Your task to perform on an android device: Open calendar and show me the second week of next month Image 0: 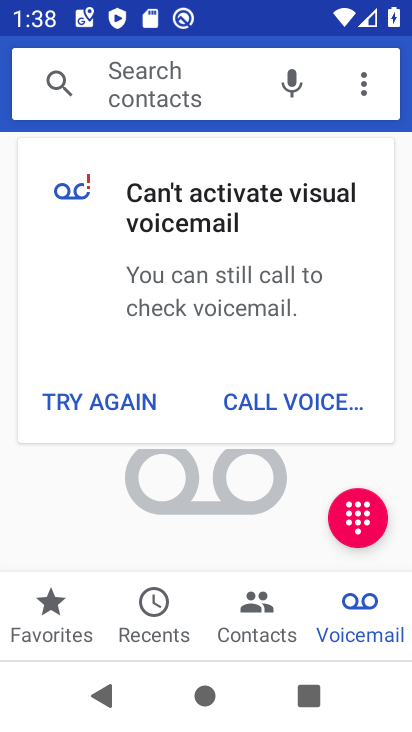
Step 0: press home button
Your task to perform on an android device: Open calendar and show me the second week of next month Image 1: 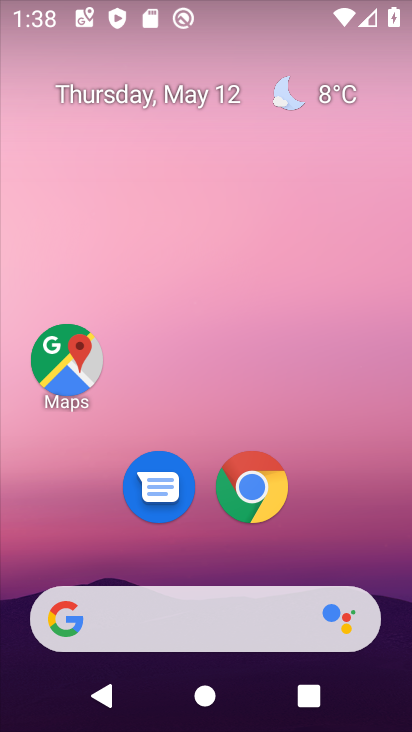
Step 1: drag from (304, 545) to (271, 12)
Your task to perform on an android device: Open calendar and show me the second week of next month Image 2: 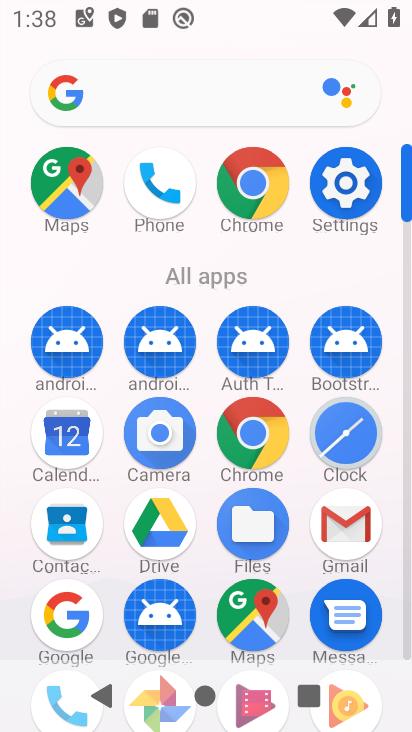
Step 2: click (61, 441)
Your task to perform on an android device: Open calendar and show me the second week of next month Image 3: 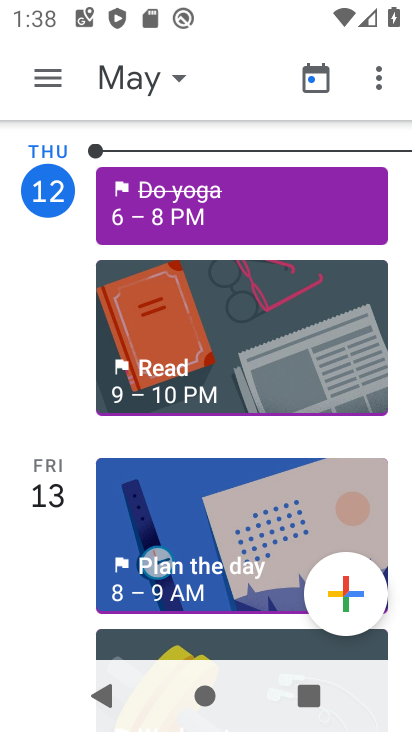
Step 3: click (139, 69)
Your task to perform on an android device: Open calendar and show me the second week of next month Image 4: 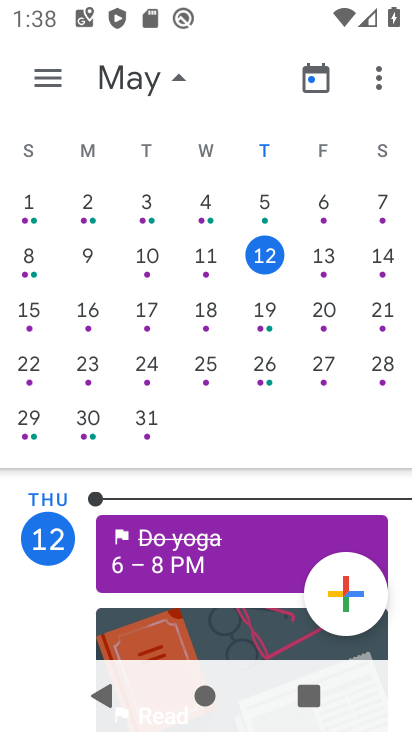
Step 4: drag from (381, 208) to (3, 162)
Your task to perform on an android device: Open calendar and show me the second week of next month Image 5: 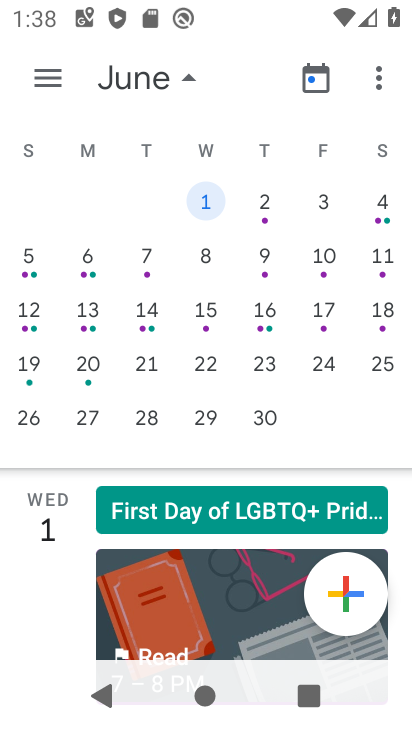
Step 5: click (28, 261)
Your task to perform on an android device: Open calendar and show me the second week of next month Image 6: 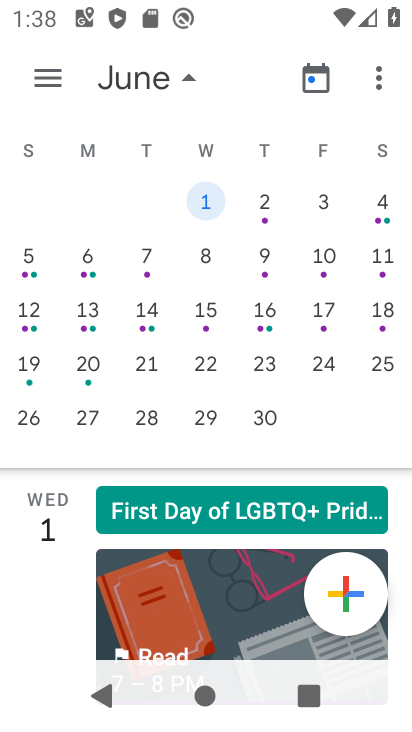
Step 6: click (31, 271)
Your task to perform on an android device: Open calendar and show me the second week of next month Image 7: 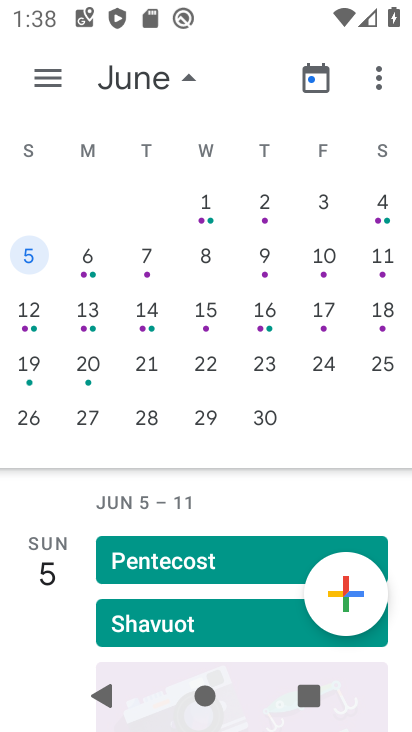
Step 7: task complete